Your task to perform on an android device: Go to settings Image 0: 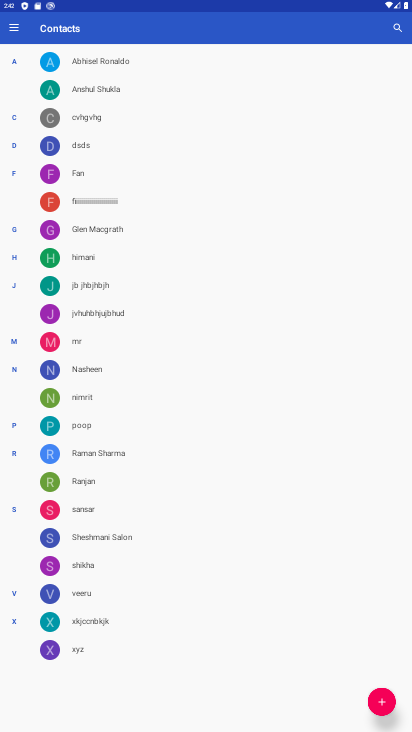
Step 0: press home button
Your task to perform on an android device: Go to settings Image 1: 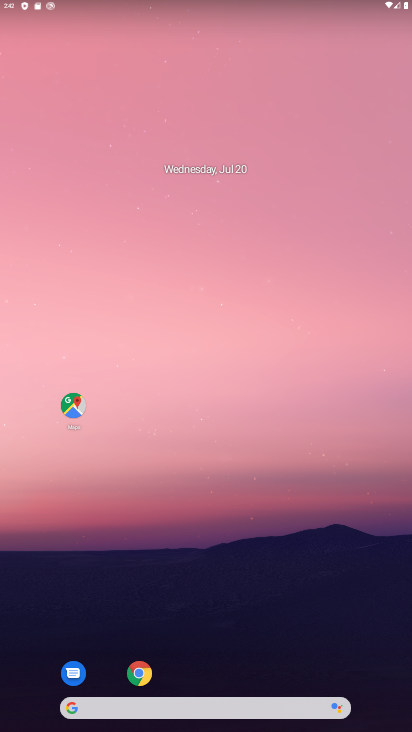
Step 1: drag from (225, 338) to (220, 183)
Your task to perform on an android device: Go to settings Image 2: 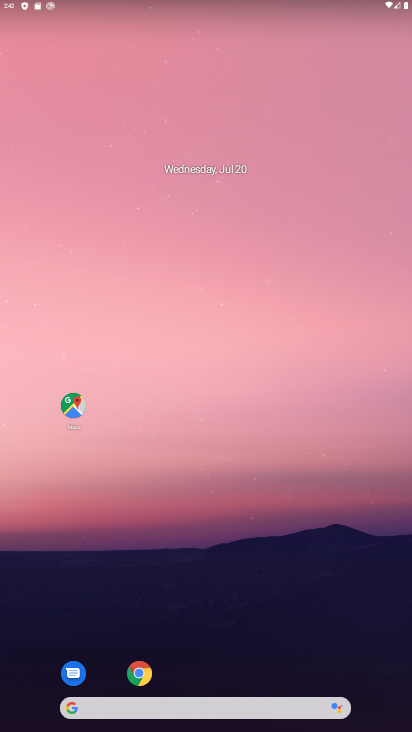
Step 2: drag from (229, 364) to (225, 110)
Your task to perform on an android device: Go to settings Image 3: 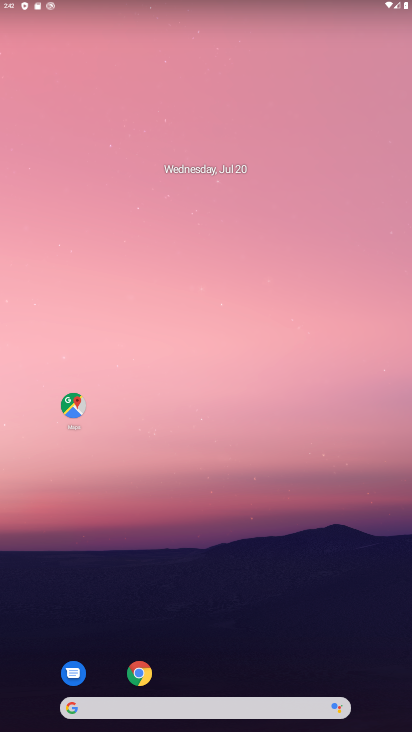
Step 3: drag from (249, 558) to (219, 64)
Your task to perform on an android device: Go to settings Image 4: 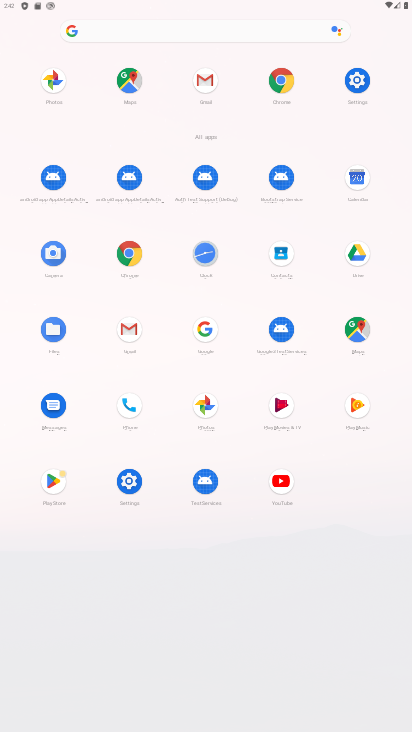
Step 4: click (131, 480)
Your task to perform on an android device: Go to settings Image 5: 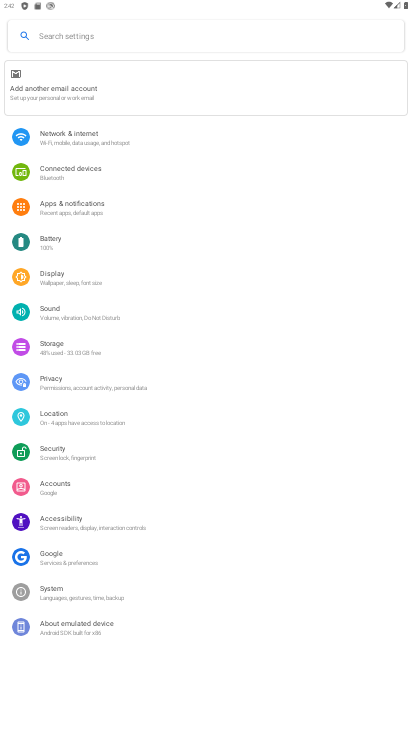
Step 5: task complete